Your task to perform on an android device: open chrome and create a bookmark for the current page Image 0: 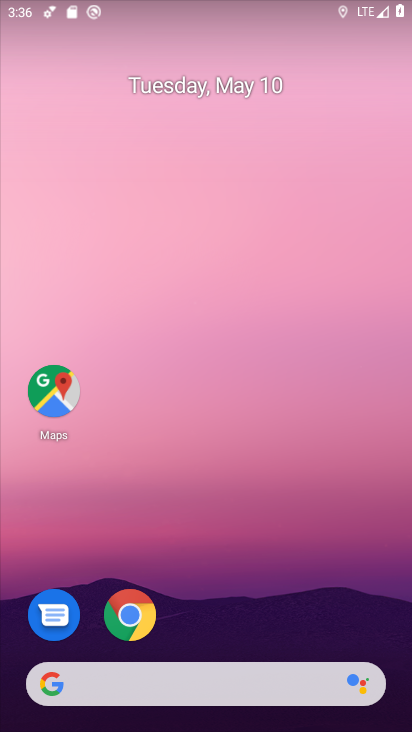
Step 0: drag from (256, 566) to (276, 57)
Your task to perform on an android device: open chrome and create a bookmark for the current page Image 1: 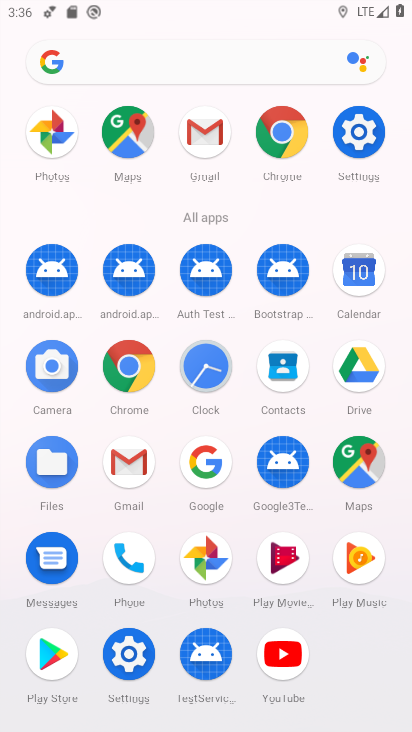
Step 1: click (285, 149)
Your task to perform on an android device: open chrome and create a bookmark for the current page Image 2: 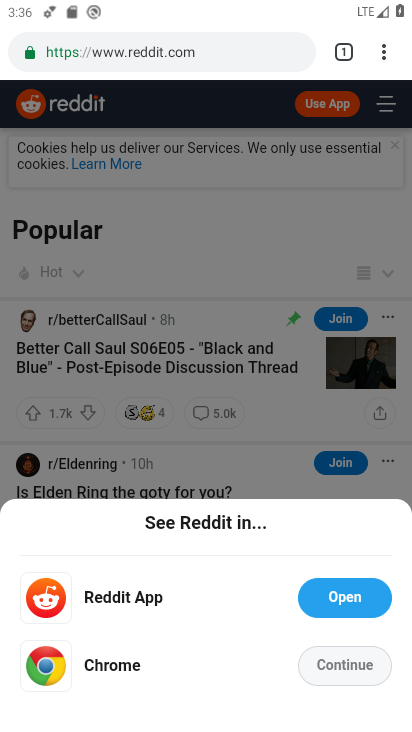
Step 2: click (267, 48)
Your task to perform on an android device: open chrome and create a bookmark for the current page Image 3: 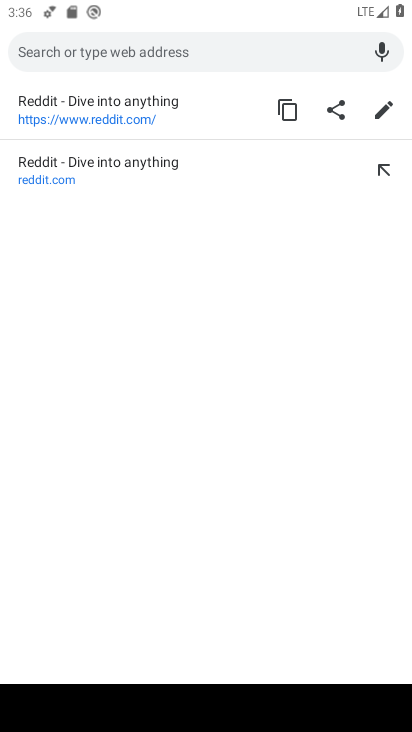
Step 3: press back button
Your task to perform on an android device: open chrome and create a bookmark for the current page Image 4: 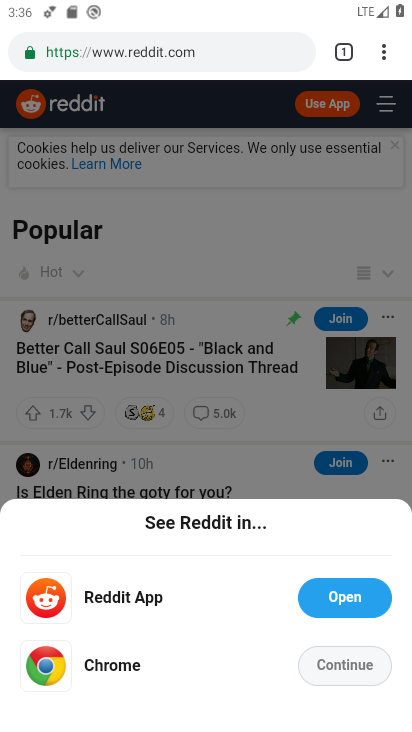
Step 4: click (386, 52)
Your task to perform on an android device: open chrome and create a bookmark for the current page Image 5: 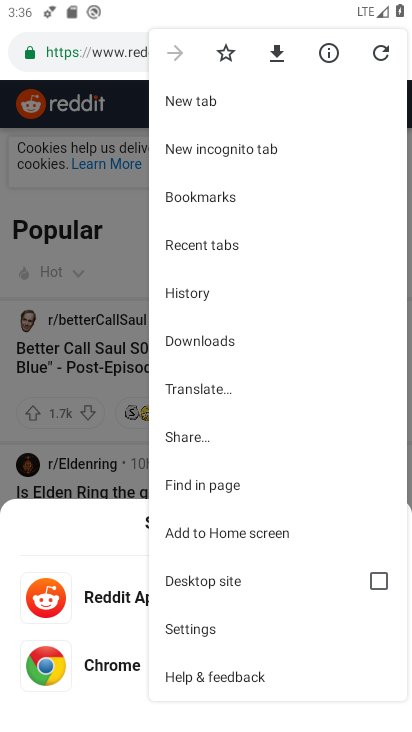
Step 5: click (227, 57)
Your task to perform on an android device: open chrome and create a bookmark for the current page Image 6: 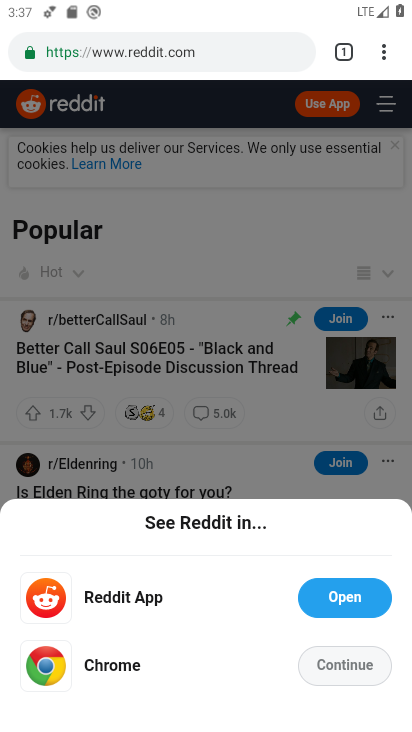
Step 6: click (387, 56)
Your task to perform on an android device: open chrome and create a bookmark for the current page Image 7: 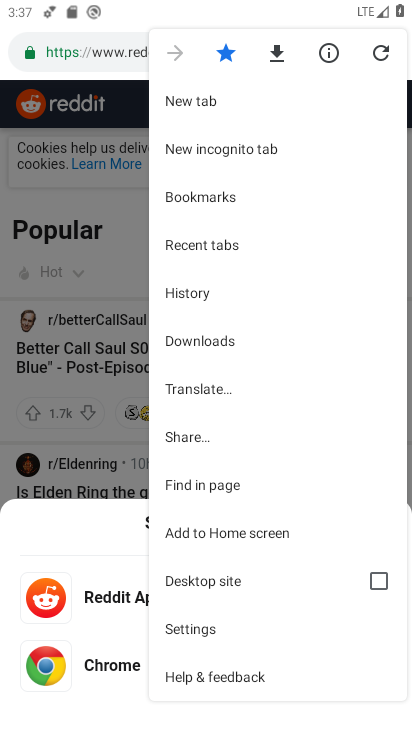
Step 7: click (220, 199)
Your task to perform on an android device: open chrome and create a bookmark for the current page Image 8: 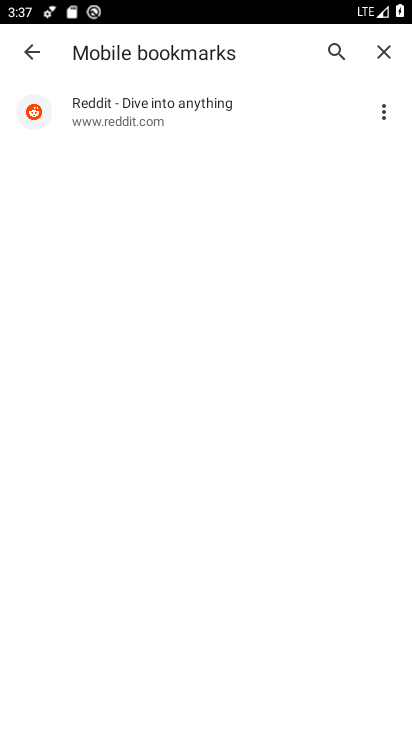
Step 8: task complete